Your task to perform on an android device: turn on location history Image 0: 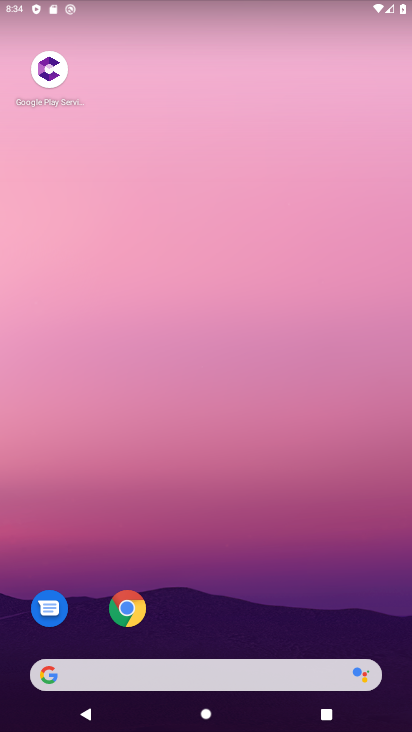
Step 0: drag from (240, 655) to (260, 53)
Your task to perform on an android device: turn on location history Image 1: 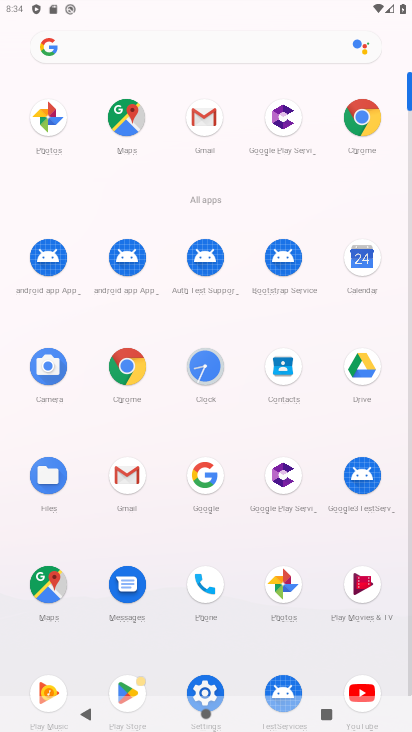
Step 1: drag from (196, 660) to (219, 467)
Your task to perform on an android device: turn on location history Image 2: 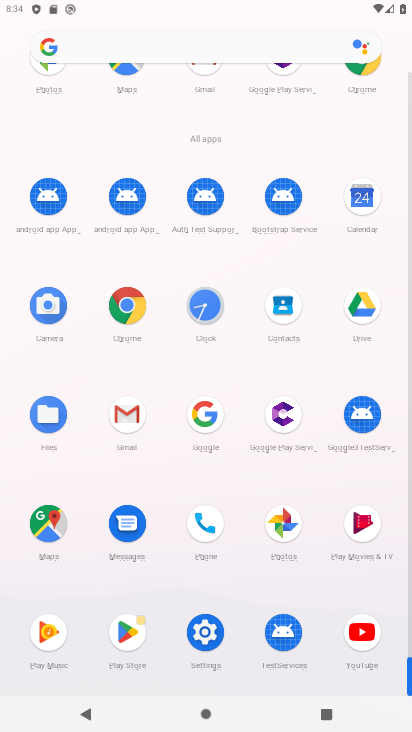
Step 2: click (208, 645)
Your task to perform on an android device: turn on location history Image 3: 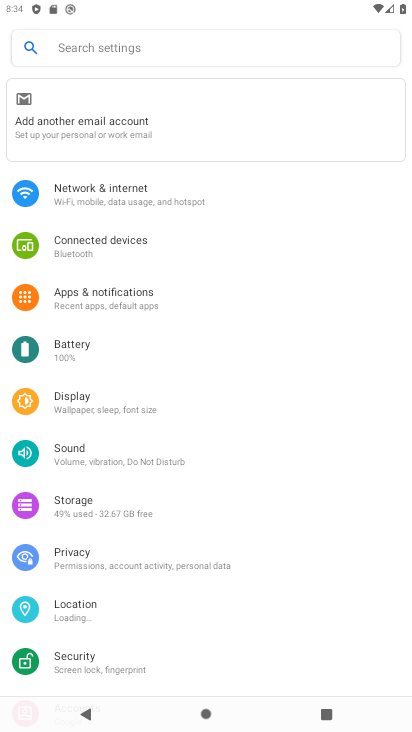
Step 3: click (85, 618)
Your task to perform on an android device: turn on location history Image 4: 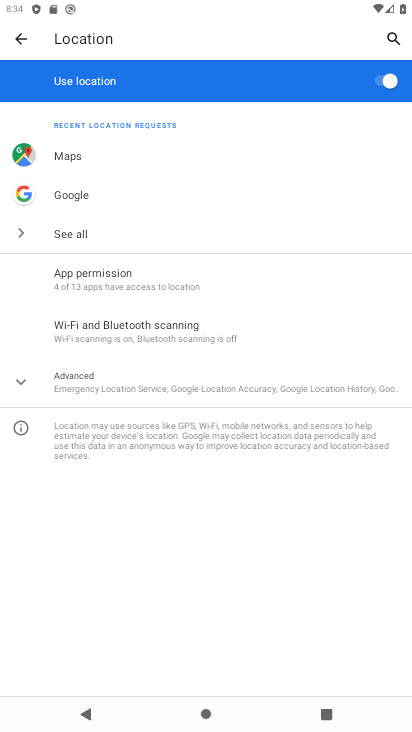
Step 4: click (181, 387)
Your task to perform on an android device: turn on location history Image 5: 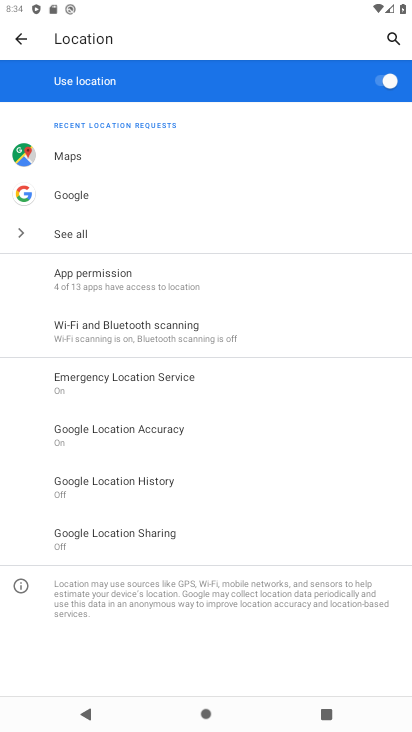
Step 5: click (124, 485)
Your task to perform on an android device: turn on location history Image 6: 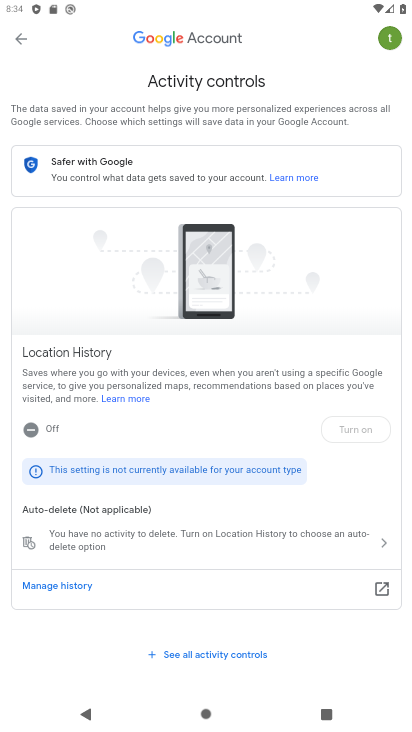
Step 6: drag from (304, 495) to (312, 375)
Your task to perform on an android device: turn on location history Image 7: 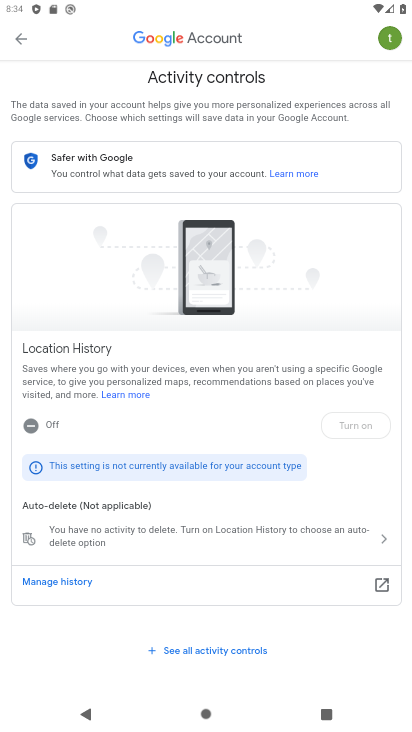
Step 7: click (219, 466)
Your task to perform on an android device: turn on location history Image 8: 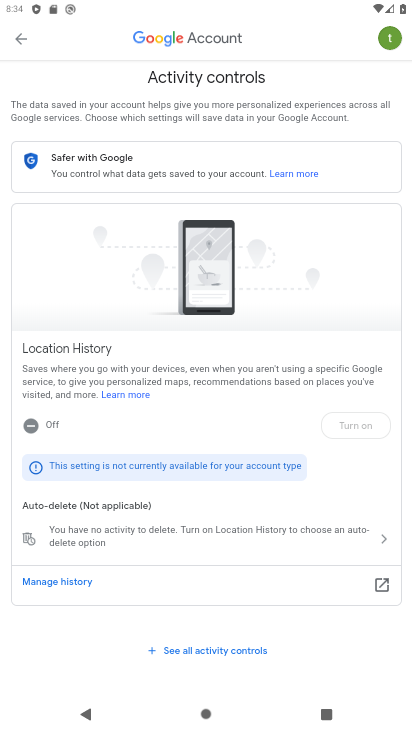
Step 8: click (356, 427)
Your task to perform on an android device: turn on location history Image 9: 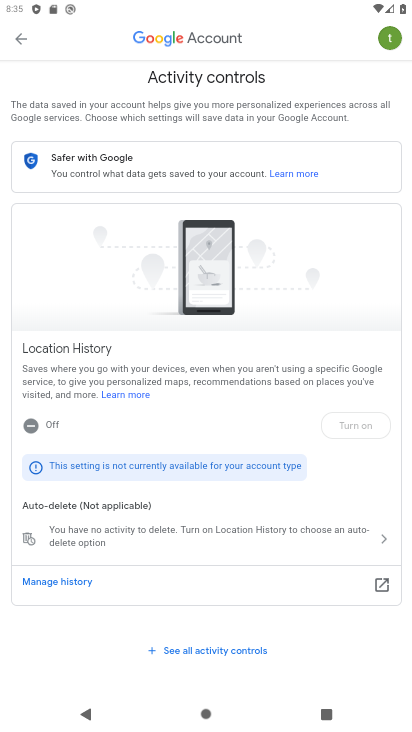
Step 9: task complete